Your task to perform on an android device: turn on translation in the chrome app Image 0: 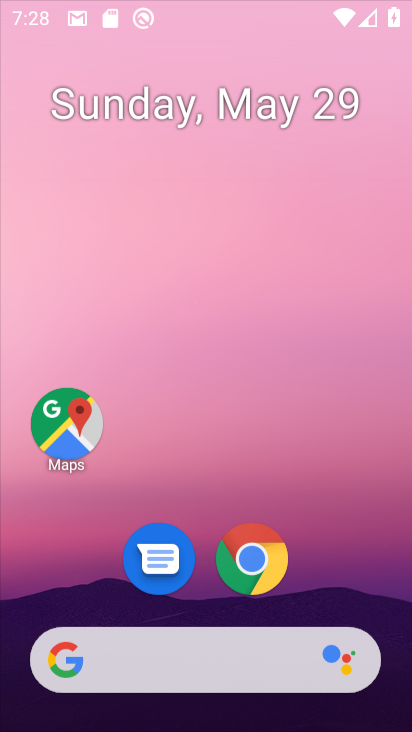
Step 0: press home button
Your task to perform on an android device: turn on translation in the chrome app Image 1: 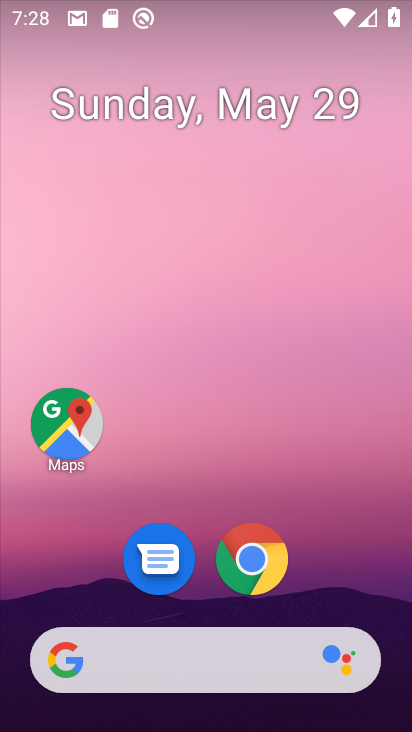
Step 1: drag from (368, 564) to (389, 150)
Your task to perform on an android device: turn on translation in the chrome app Image 2: 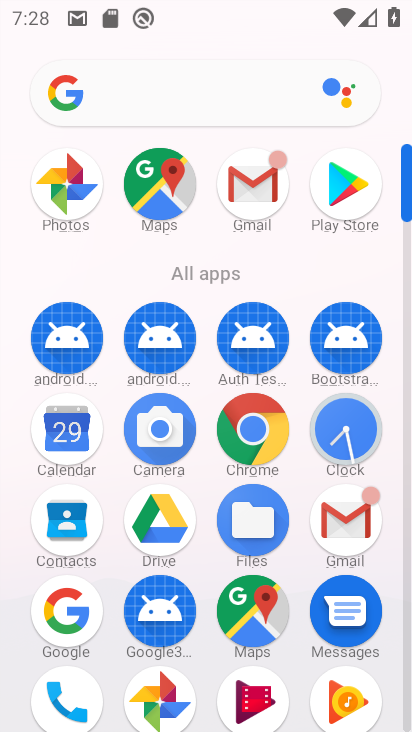
Step 2: click (243, 444)
Your task to perform on an android device: turn on translation in the chrome app Image 3: 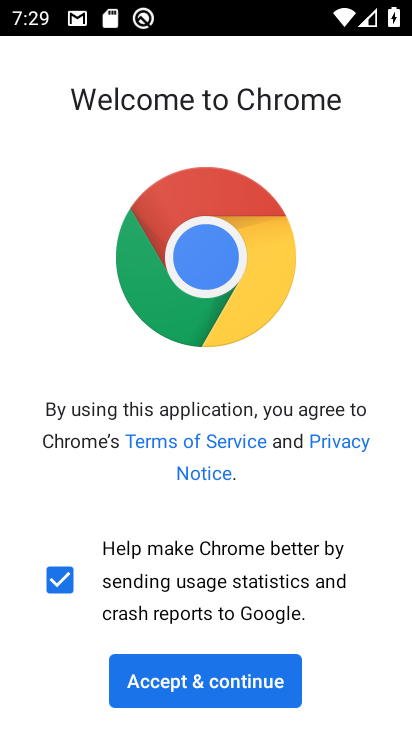
Step 3: click (234, 693)
Your task to perform on an android device: turn on translation in the chrome app Image 4: 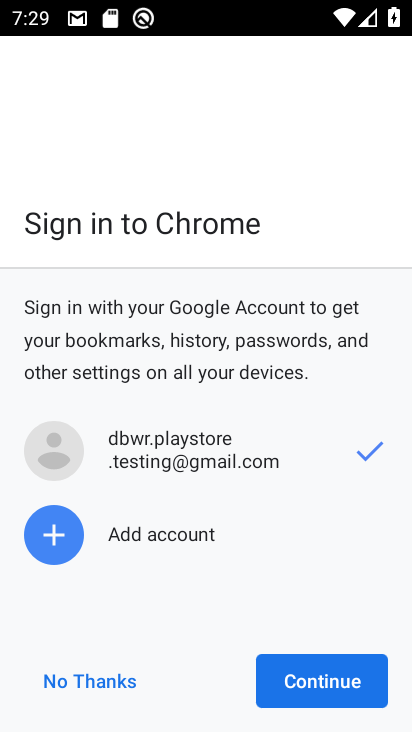
Step 4: click (299, 697)
Your task to perform on an android device: turn on translation in the chrome app Image 5: 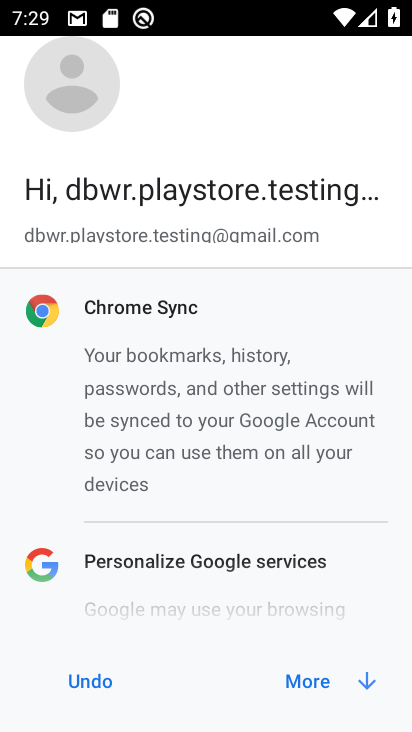
Step 5: click (301, 695)
Your task to perform on an android device: turn on translation in the chrome app Image 6: 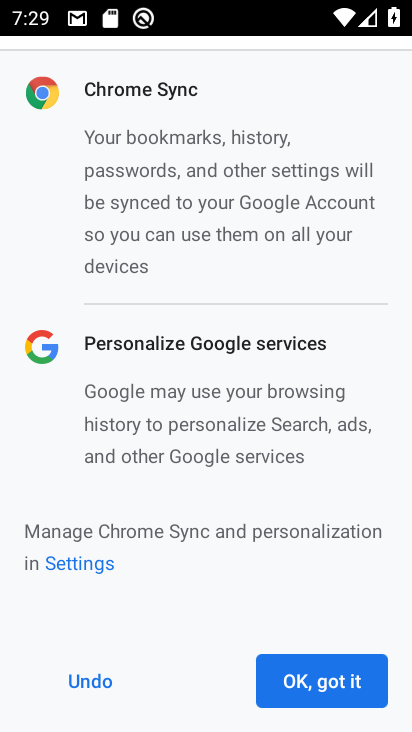
Step 6: click (301, 695)
Your task to perform on an android device: turn on translation in the chrome app Image 7: 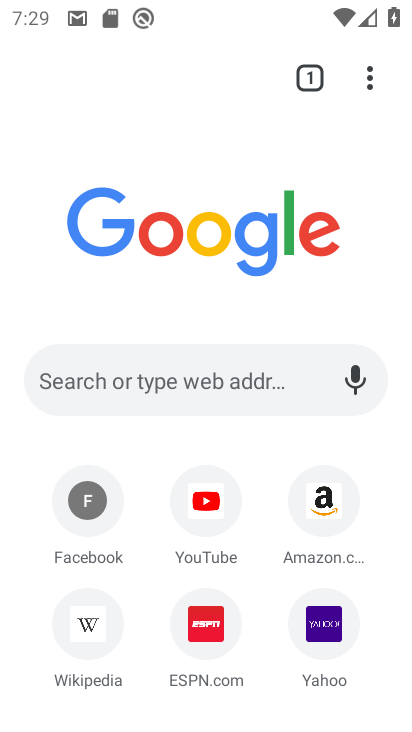
Step 7: click (370, 84)
Your task to perform on an android device: turn on translation in the chrome app Image 8: 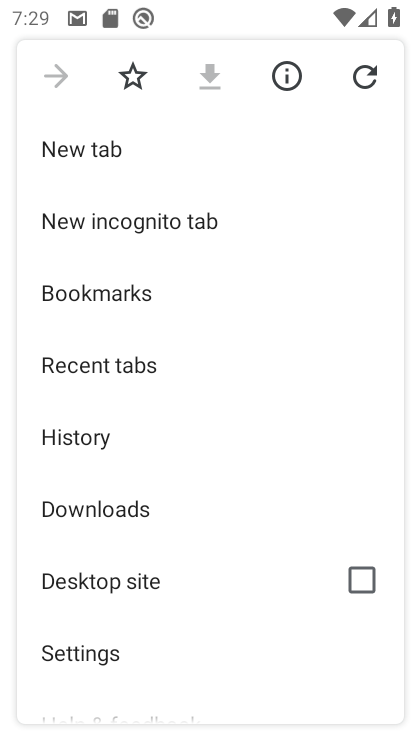
Step 8: drag from (342, 426) to (358, 347)
Your task to perform on an android device: turn on translation in the chrome app Image 9: 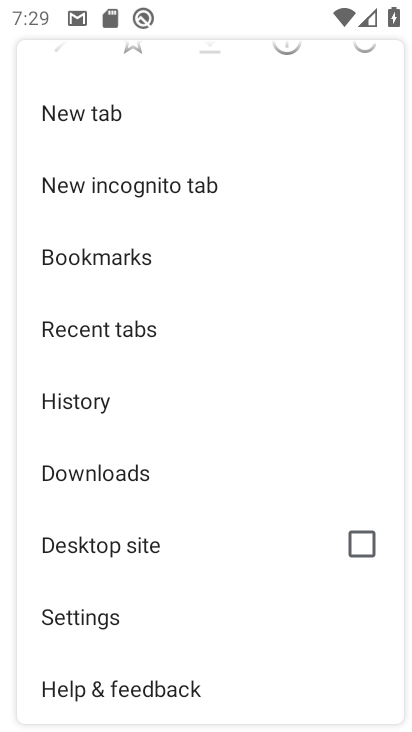
Step 9: drag from (282, 471) to (290, 307)
Your task to perform on an android device: turn on translation in the chrome app Image 10: 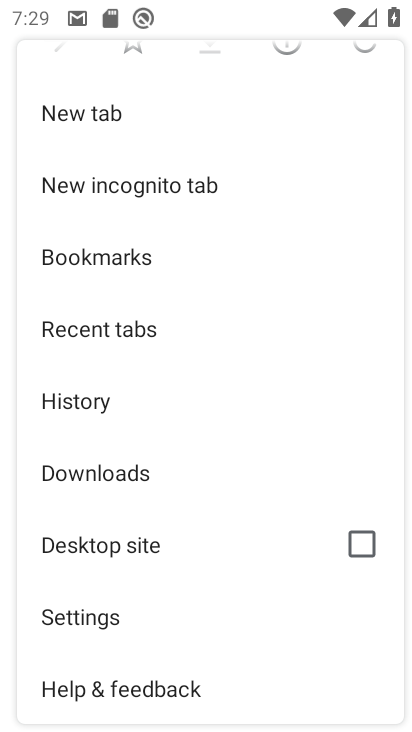
Step 10: drag from (275, 479) to (271, 388)
Your task to perform on an android device: turn on translation in the chrome app Image 11: 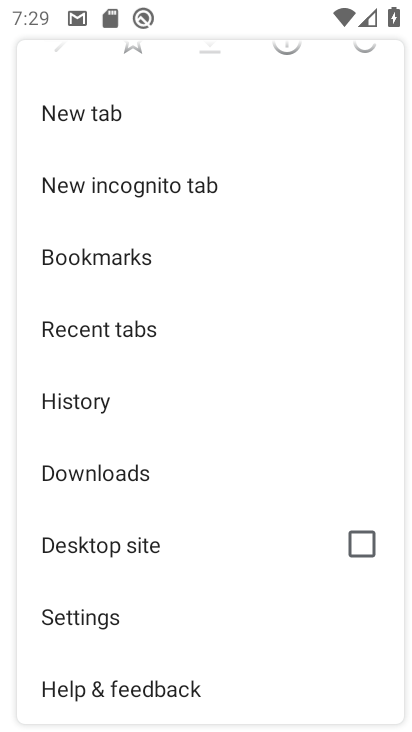
Step 11: click (127, 630)
Your task to perform on an android device: turn on translation in the chrome app Image 12: 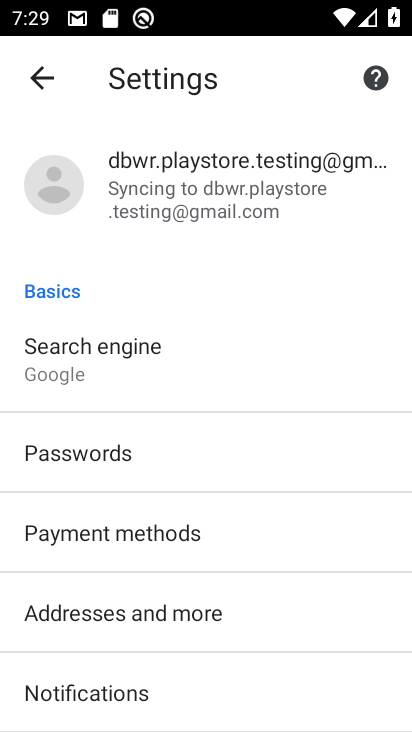
Step 12: drag from (290, 643) to (320, 427)
Your task to perform on an android device: turn on translation in the chrome app Image 13: 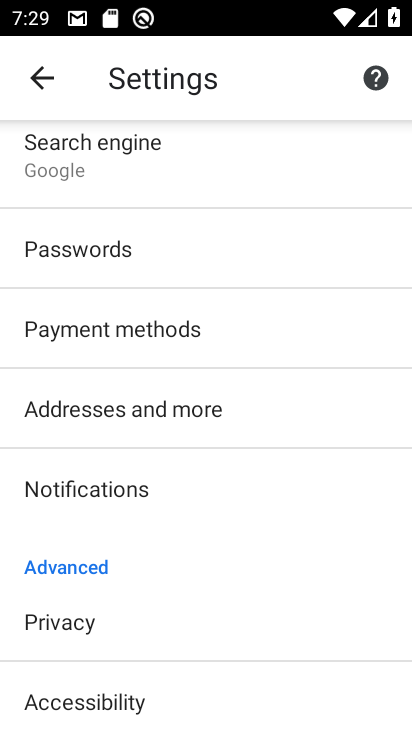
Step 13: drag from (305, 583) to (313, 409)
Your task to perform on an android device: turn on translation in the chrome app Image 14: 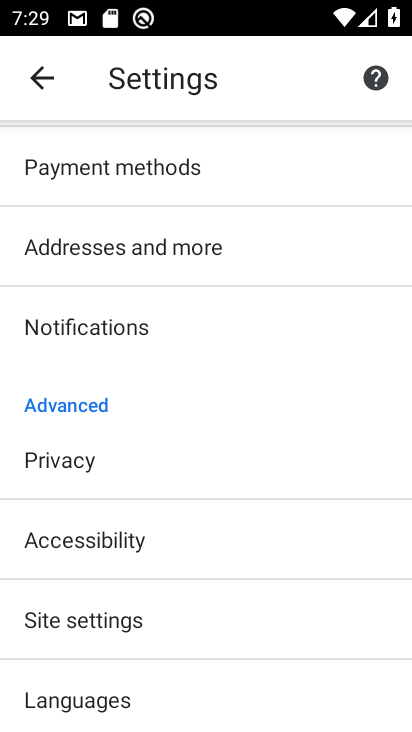
Step 14: drag from (287, 645) to (276, 480)
Your task to perform on an android device: turn on translation in the chrome app Image 15: 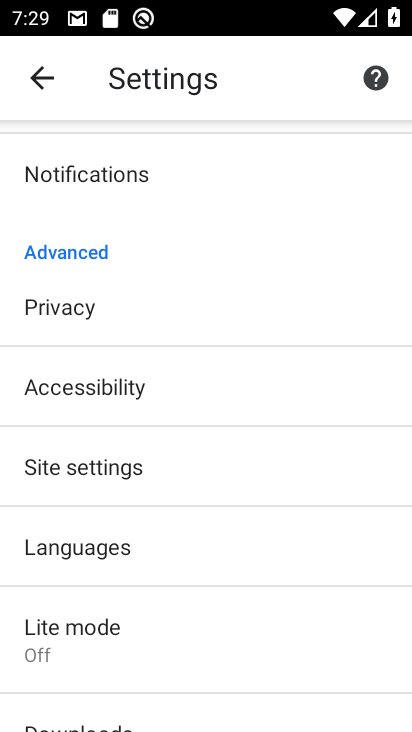
Step 15: drag from (253, 653) to (277, 387)
Your task to perform on an android device: turn on translation in the chrome app Image 16: 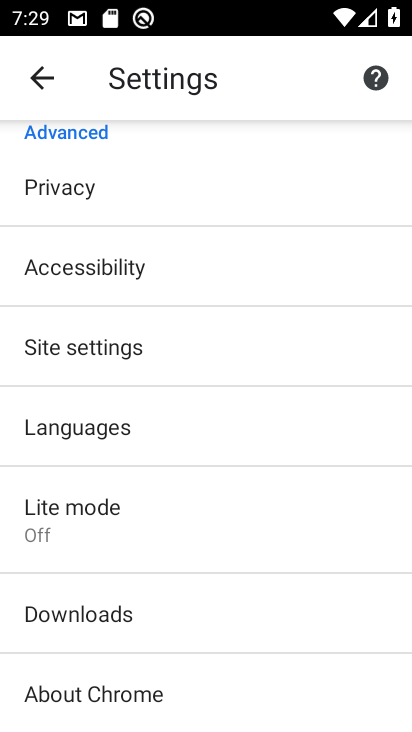
Step 16: click (233, 430)
Your task to perform on an android device: turn on translation in the chrome app Image 17: 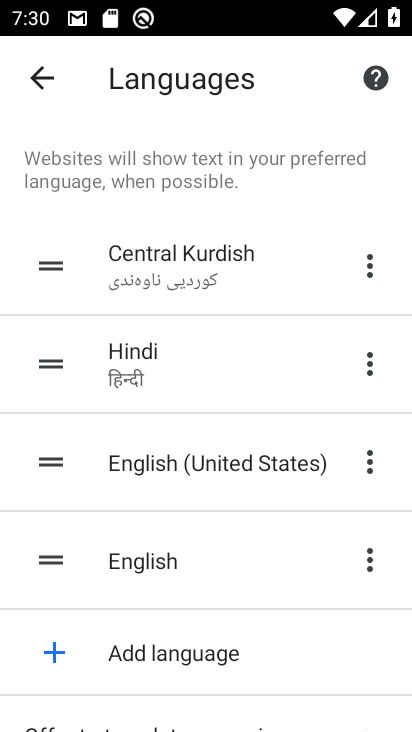
Step 17: task complete